Your task to perform on an android device: search for starred emails in the gmail app Image 0: 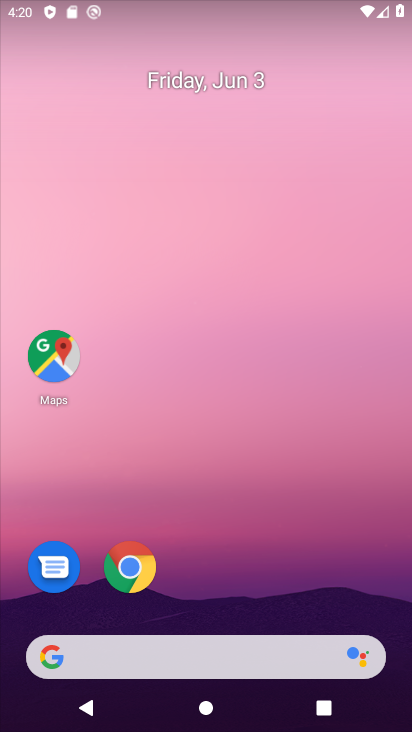
Step 0: drag from (260, 535) to (209, 52)
Your task to perform on an android device: search for starred emails in the gmail app Image 1: 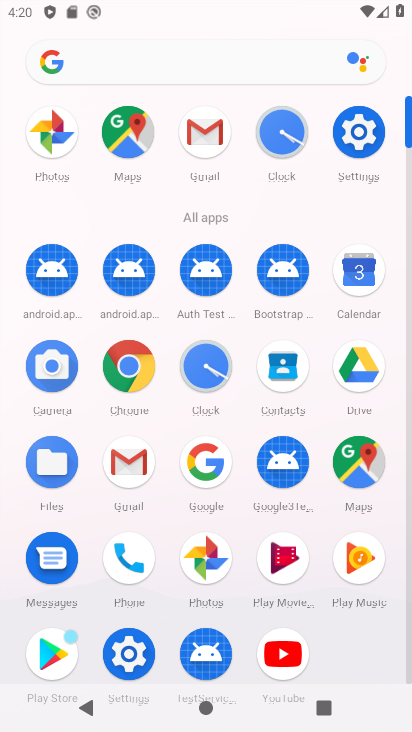
Step 1: click (203, 133)
Your task to perform on an android device: search for starred emails in the gmail app Image 2: 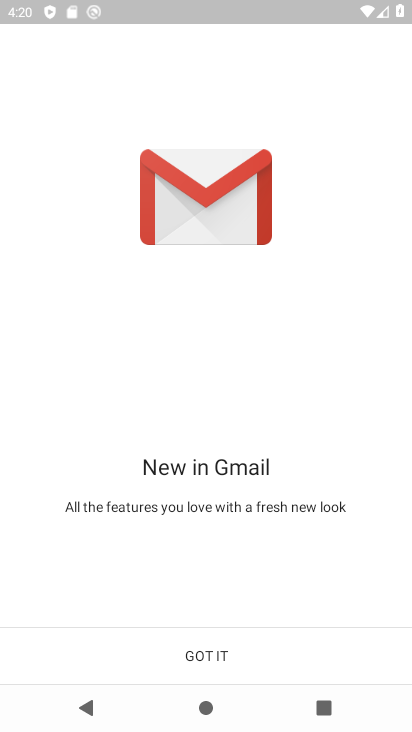
Step 2: click (197, 647)
Your task to perform on an android device: search for starred emails in the gmail app Image 3: 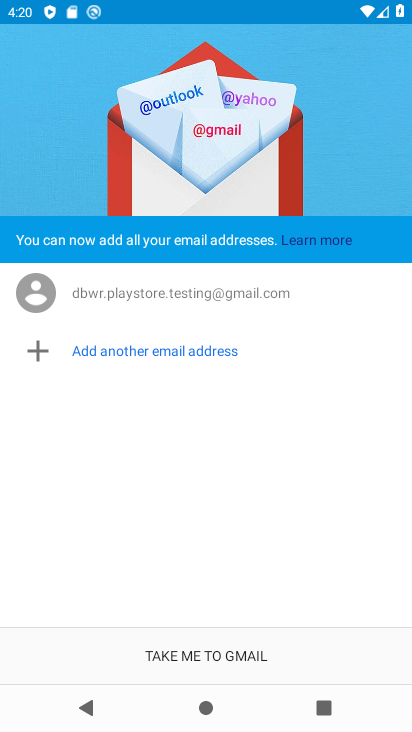
Step 3: click (197, 647)
Your task to perform on an android device: search for starred emails in the gmail app Image 4: 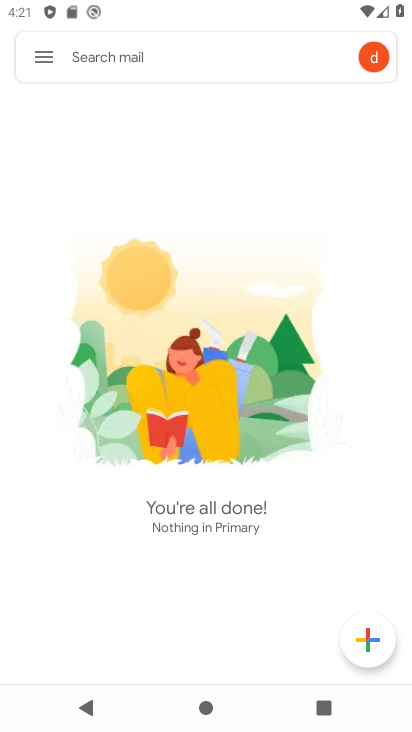
Step 4: click (48, 47)
Your task to perform on an android device: search for starred emails in the gmail app Image 5: 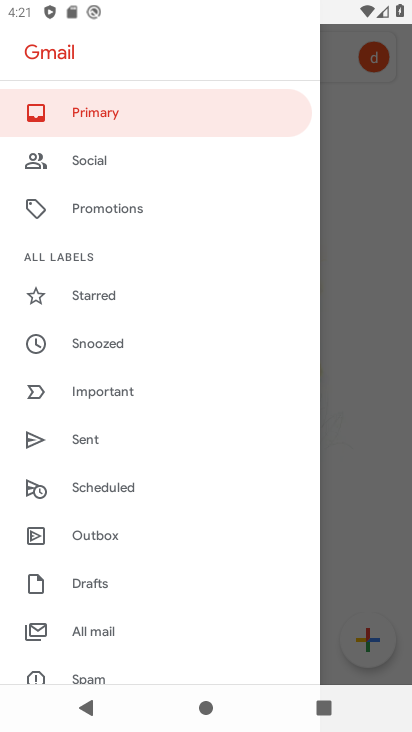
Step 5: click (109, 305)
Your task to perform on an android device: search for starred emails in the gmail app Image 6: 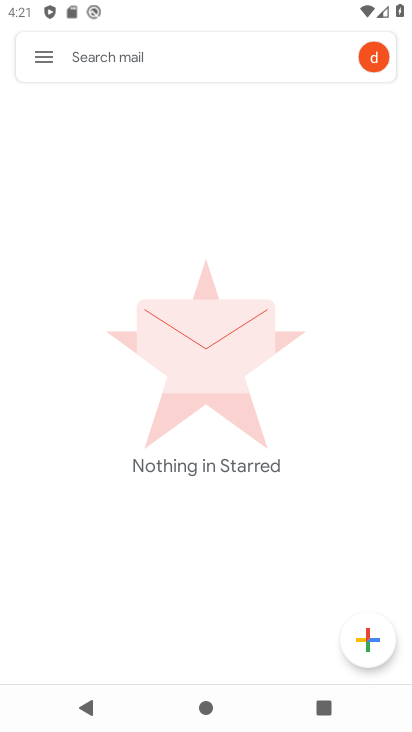
Step 6: task complete